Your task to perform on an android device: set the stopwatch Image 0: 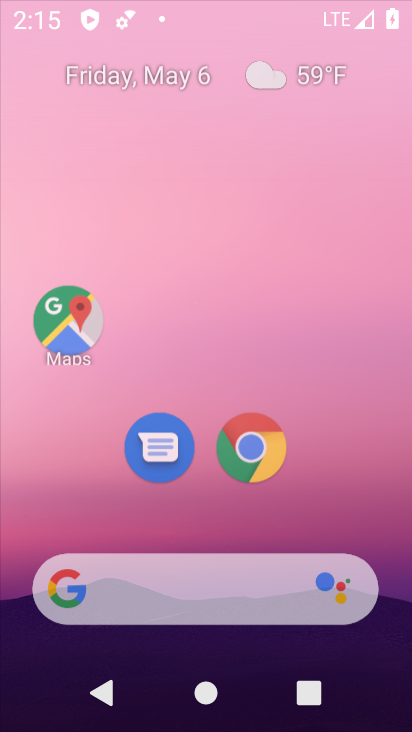
Step 0: click (326, 82)
Your task to perform on an android device: set the stopwatch Image 1: 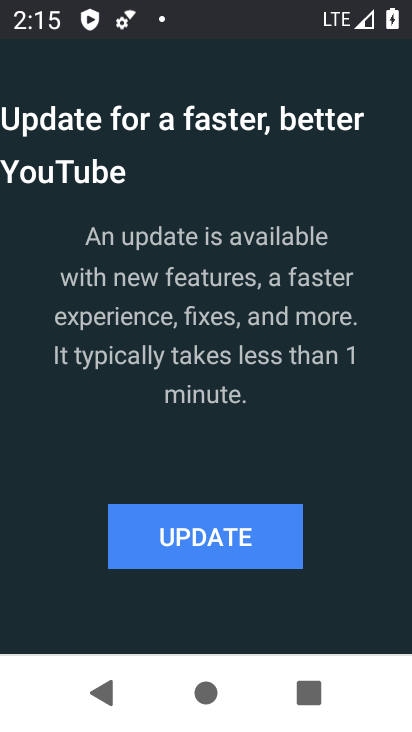
Step 1: press home button
Your task to perform on an android device: set the stopwatch Image 2: 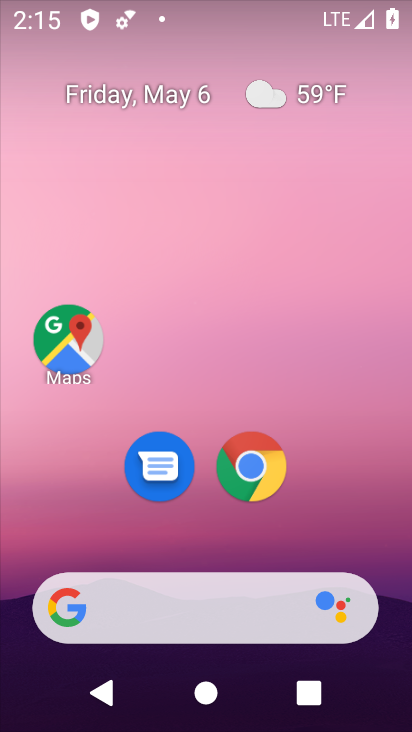
Step 2: drag from (325, 501) to (320, 165)
Your task to perform on an android device: set the stopwatch Image 3: 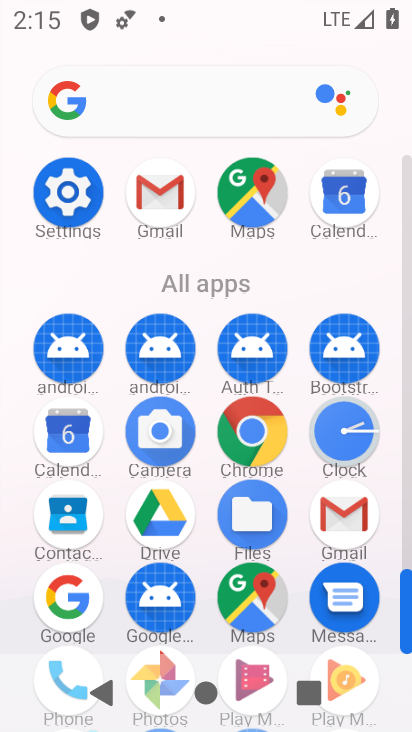
Step 3: click (358, 420)
Your task to perform on an android device: set the stopwatch Image 4: 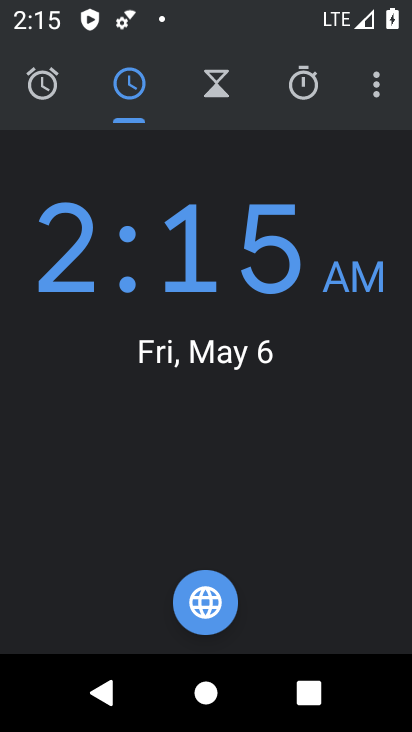
Step 4: click (319, 91)
Your task to perform on an android device: set the stopwatch Image 5: 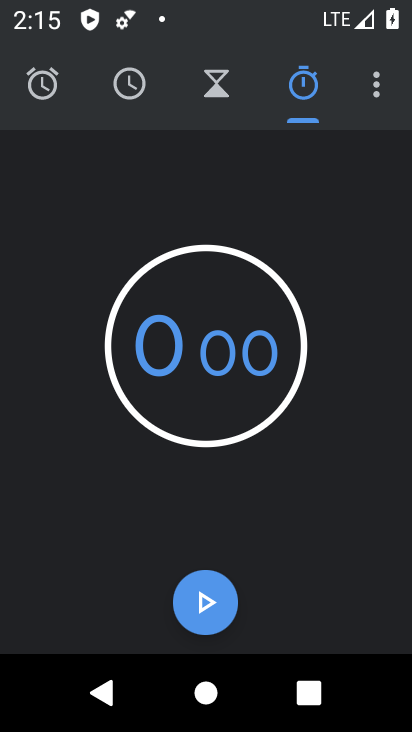
Step 5: click (205, 585)
Your task to perform on an android device: set the stopwatch Image 6: 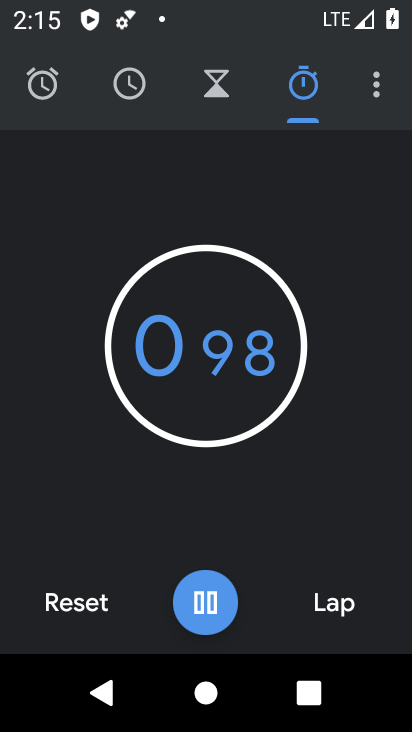
Step 6: click (204, 584)
Your task to perform on an android device: set the stopwatch Image 7: 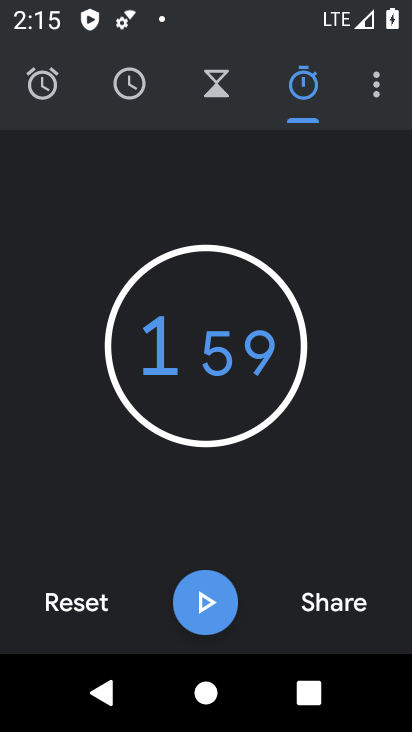
Step 7: task complete